Your task to perform on an android device: turn on javascript in the chrome app Image 0: 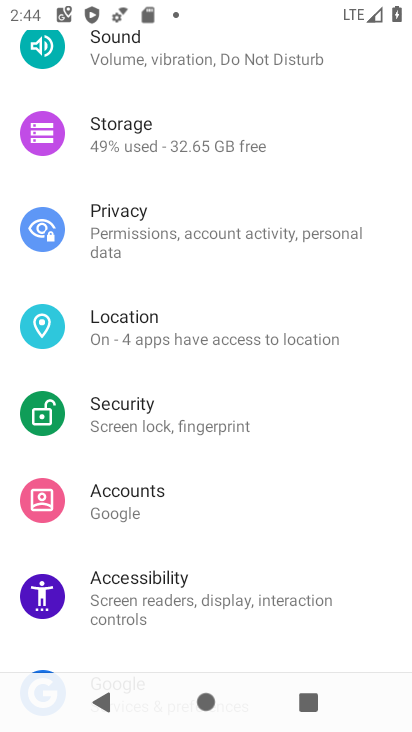
Step 0: press home button
Your task to perform on an android device: turn on javascript in the chrome app Image 1: 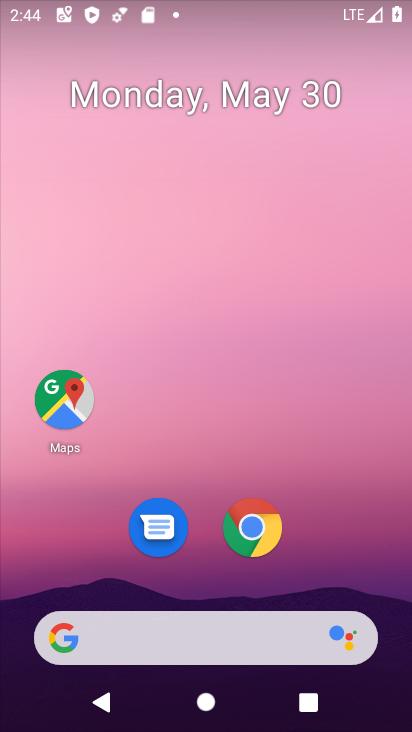
Step 1: click (237, 526)
Your task to perform on an android device: turn on javascript in the chrome app Image 2: 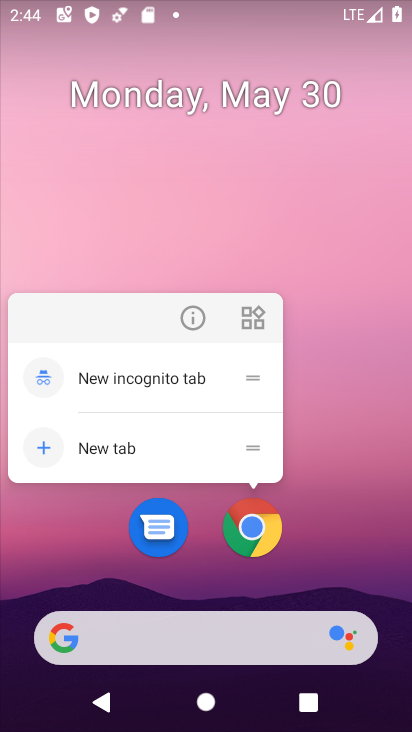
Step 2: click (262, 528)
Your task to perform on an android device: turn on javascript in the chrome app Image 3: 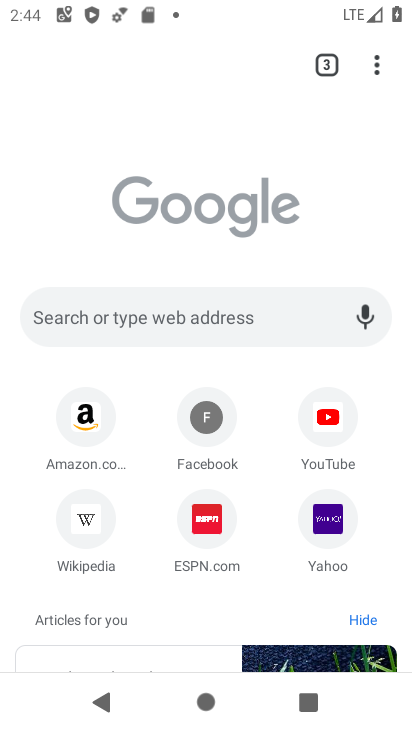
Step 3: drag from (379, 62) to (134, 546)
Your task to perform on an android device: turn on javascript in the chrome app Image 4: 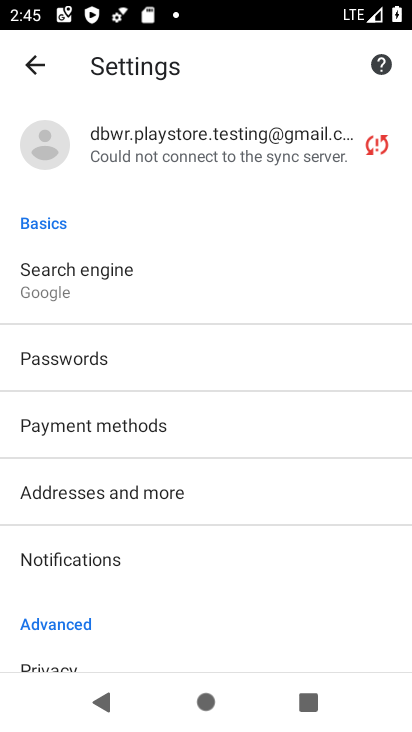
Step 4: drag from (168, 582) to (236, 213)
Your task to perform on an android device: turn on javascript in the chrome app Image 5: 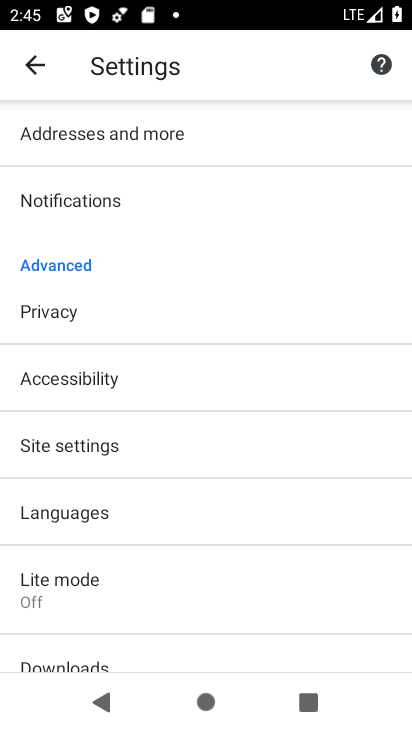
Step 5: click (75, 440)
Your task to perform on an android device: turn on javascript in the chrome app Image 6: 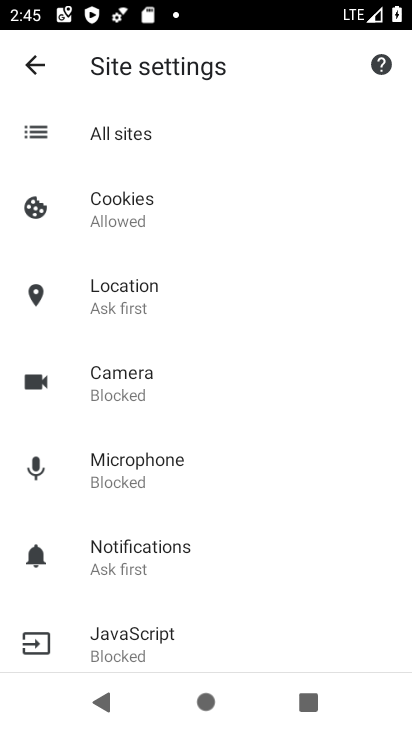
Step 6: click (147, 639)
Your task to perform on an android device: turn on javascript in the chrome app Image 7: 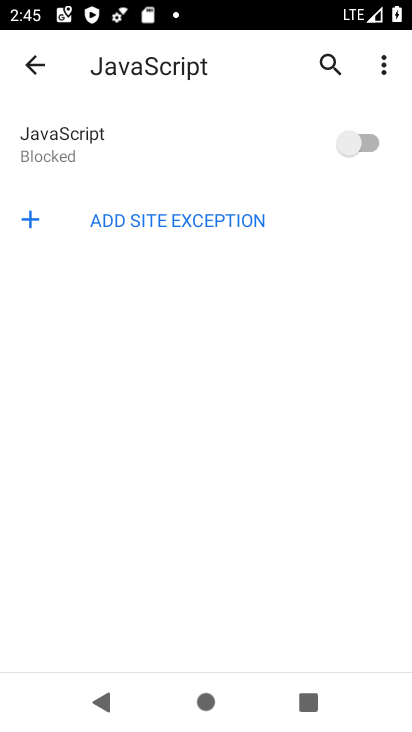
Step 7: click (373, 146)
Your task to perform on an android device: turn on javascript in the chrome app Image 8: 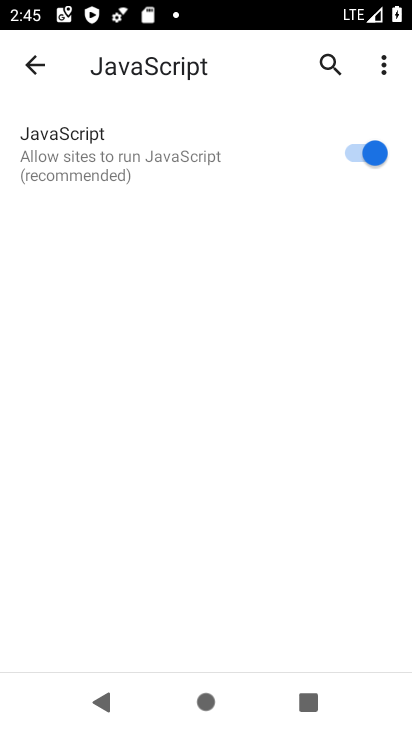
Step 8: task complete